Your task to perform on an android device: Go to Yahoo.com Image 0: 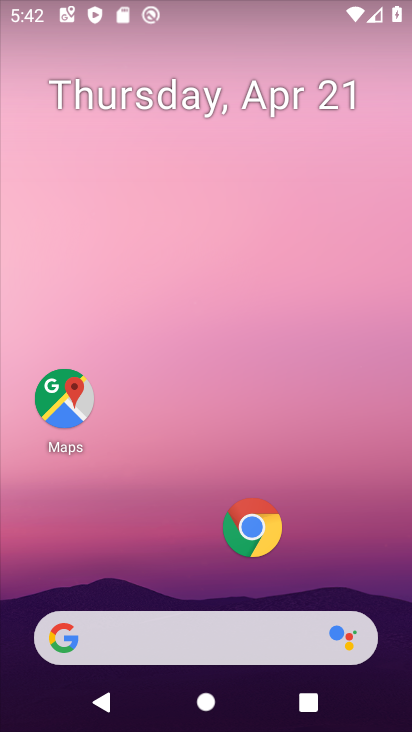
Step 0: click (329, 7)
Your task to perform on an android device: Go to Yahoo.com Image 1: 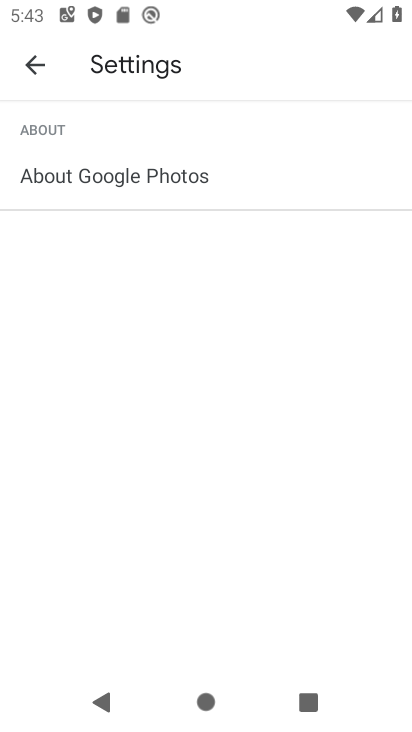
Step 1: press back button
Your task to perform on an android device: Go to Yahoo.com Image 2: 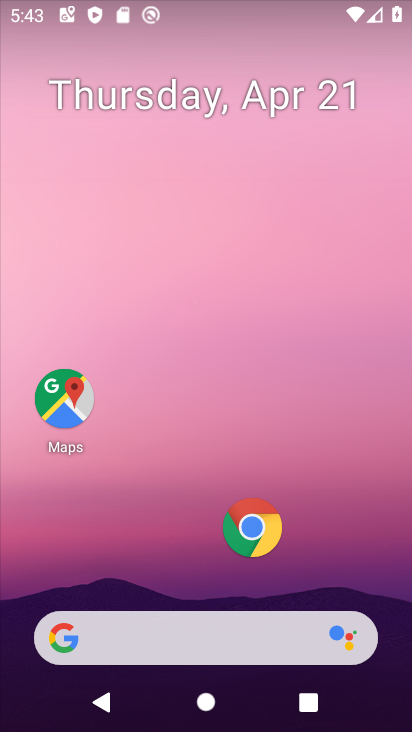
Step 2: drag from (172, 517) to (236, 163)
Your task to perform on an android device: Go to Yahoo.com Image 3: 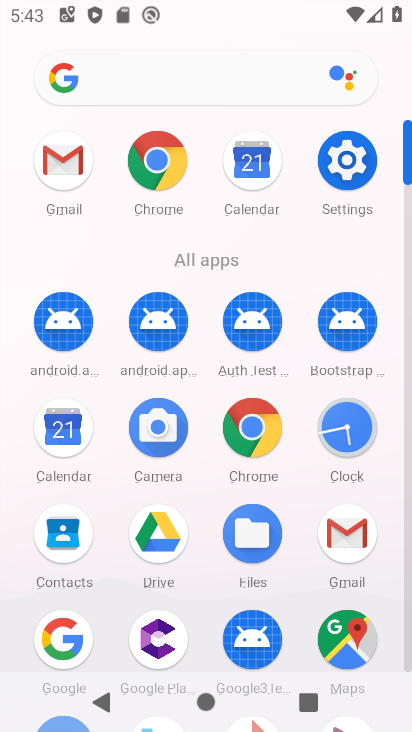
Step 3: click (160, 156)
Your task to perform on an android device: Go to Yahoo.com Image 4: 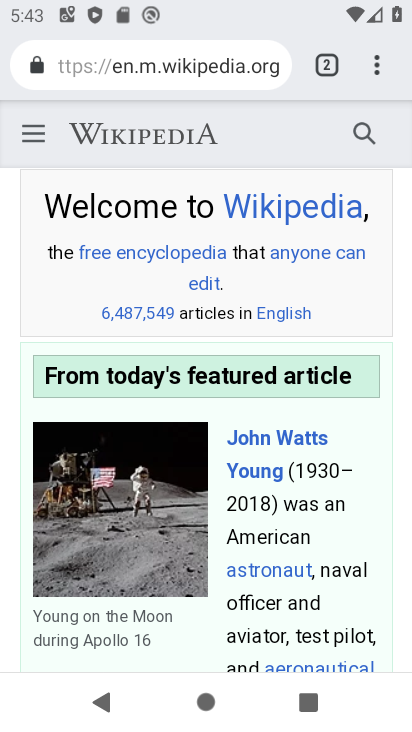
Step 4: click (332, 72)
Your task to perform on an android device: Go to Yahoo.com Image 5: 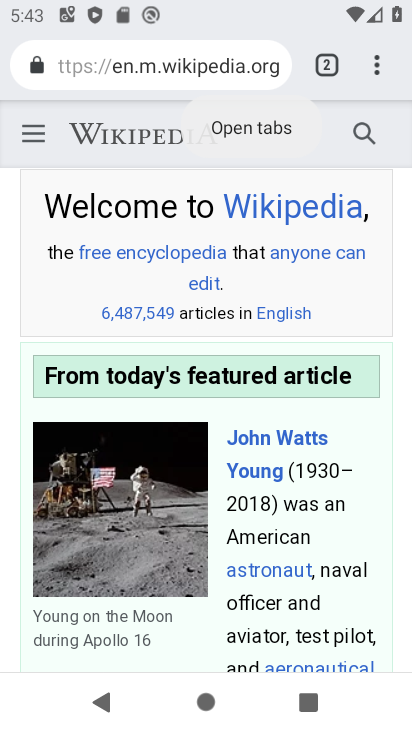
Step 5: click (330, 61)
Your task to perform on an android device: Go to Yahoo.com Image 6: 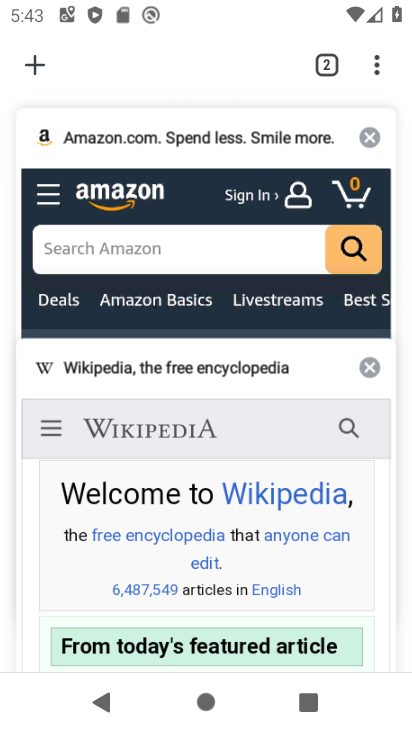
Step 6: click (41, 56)
Your task to perform on an android device: Go to Yahoo.com Image 7: 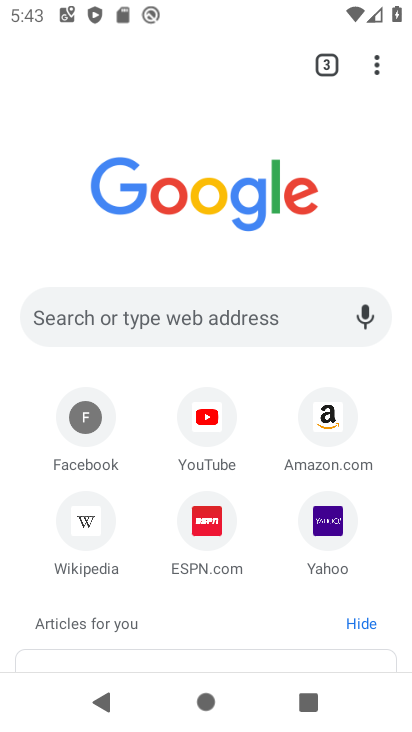
Step 7: click (327, 551)
Your task to perform on an android device: Go to Yahoo.com Image 8: 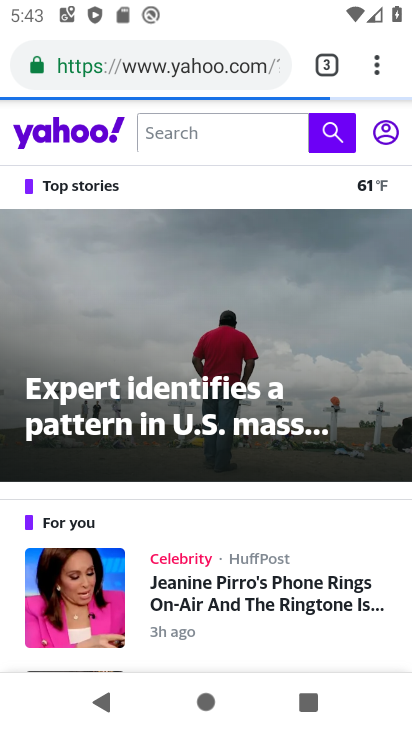
Step 8: task complete